Your task to perform on an android device: toggle javascript in the chrome app Image 0: 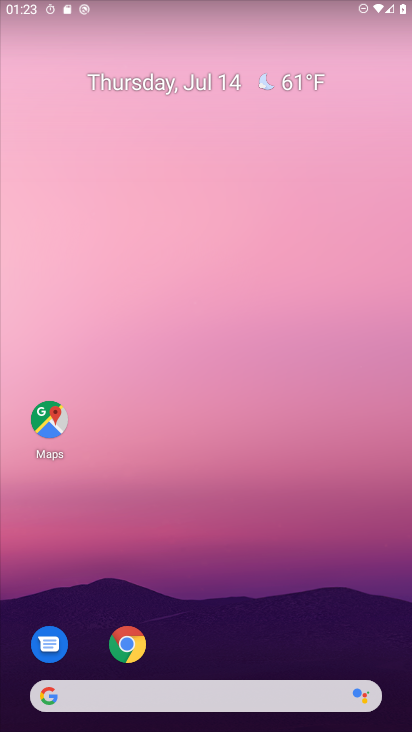
Step 0: drag from (288, 583) to (277, 118)
Your task to perform on an android device: toggle javascript in the chrome app Image 1: 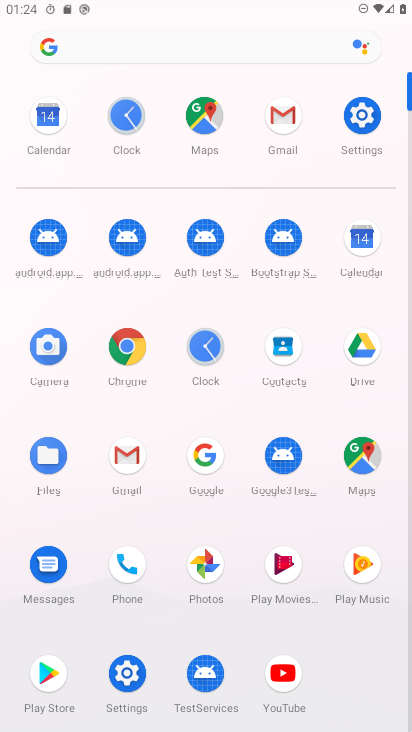
Step 1: click (126, 350)
Your task to perform on an android device: toggle javascript in the chrome app Image 2: 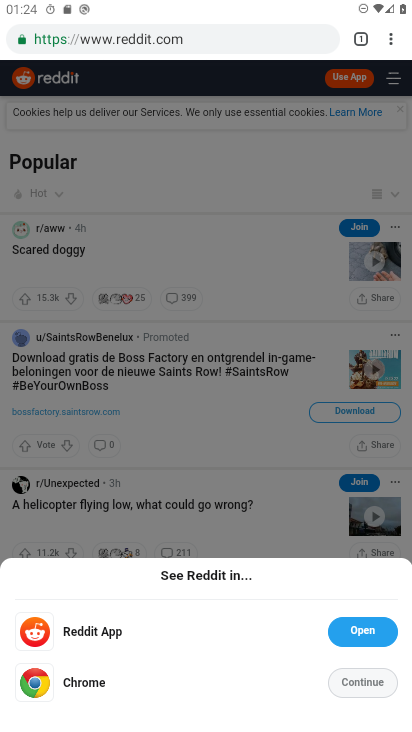
Step 2: drag from (390, 39) to (265, 469)
Your task to perform on an android device: toggle javascript in the chrome app Image 3: 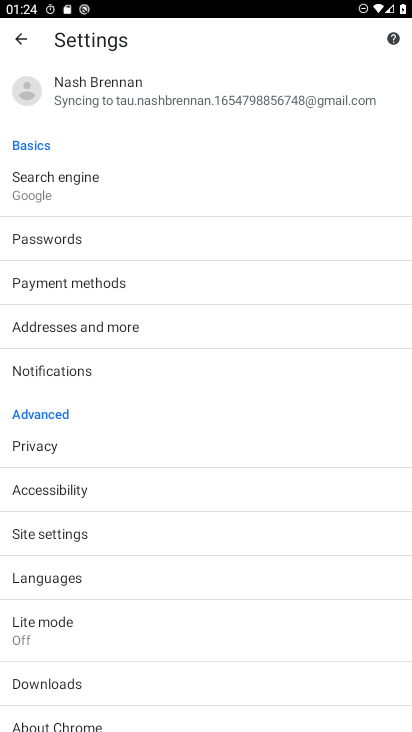
Step 3: drag from (265, 678) to (222, 261)
Your task to perform on an android device: toggle javascript in the chrome app Image 4: 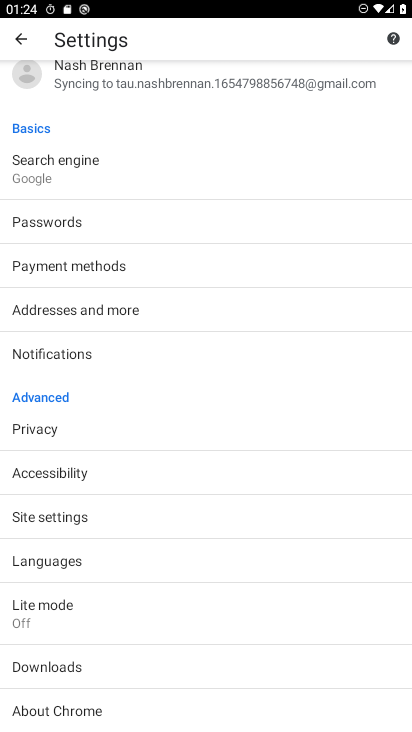
Step 4: click (70, 522)
Your task to perform on an android device: toggle javascript in the chrome app Image 5: 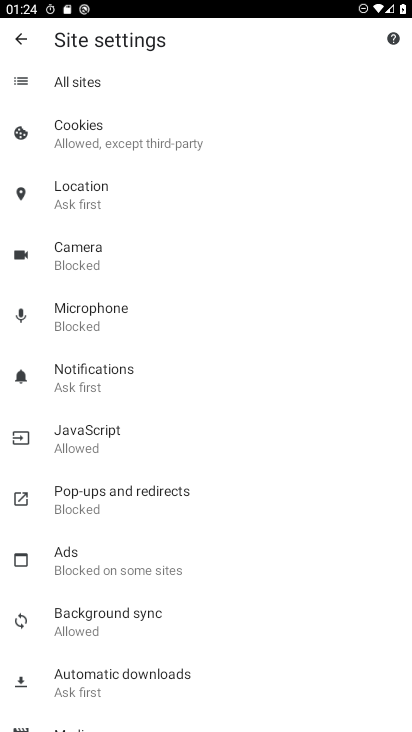
Step 5: click (105, 439)
Your task to perform on an android device: toggle javascript in the chrome app Image 6: 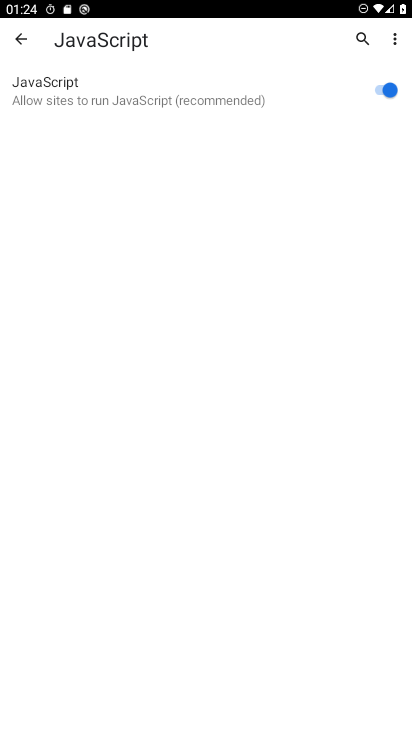
Step 6: click (389, 89)
Your task to perform on an android device: toggle javascript in the chrome app Image 7: 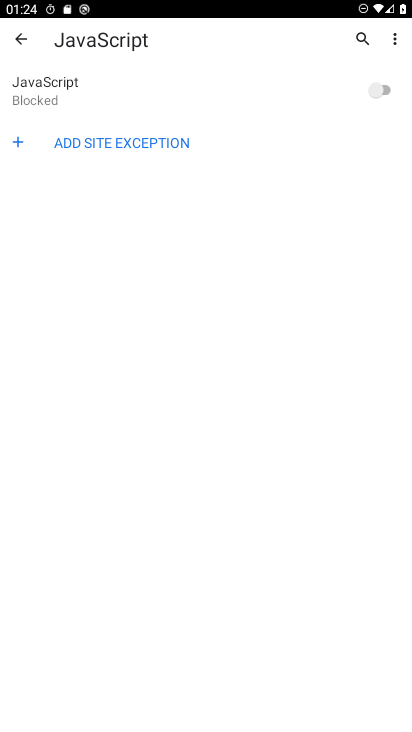
Step 7: task complete